Your task to perform on an android device: toggle airplane mode Image 0: 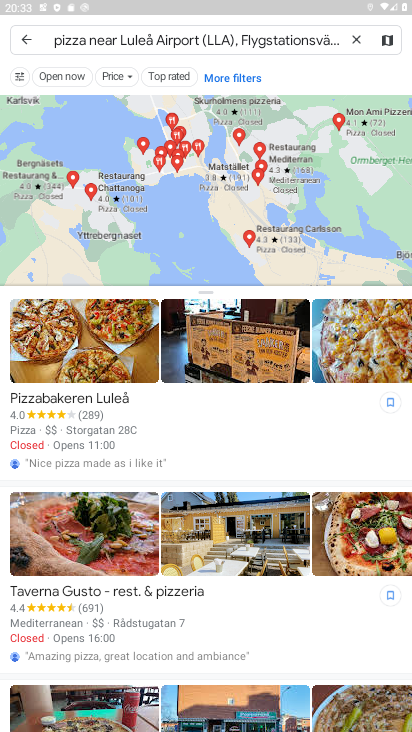
Step 0: drag from (186, 7) to (164, 386)
Your task to perform on an android device: toggle airplane mode Image 1: 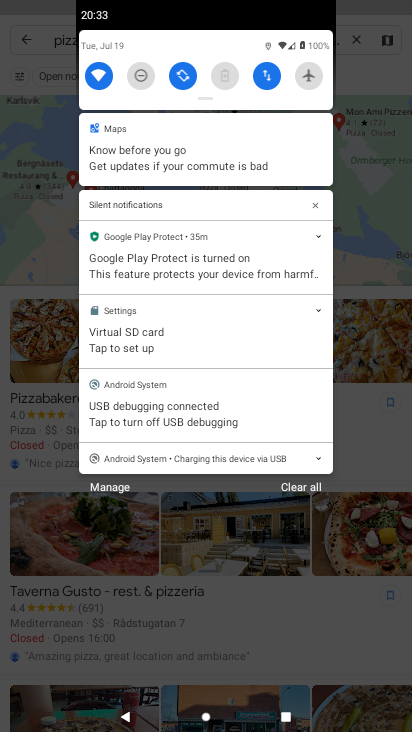
Step 1: click (311, 87)
Your task to perform on an android device: toggle airplane mode Image 2: 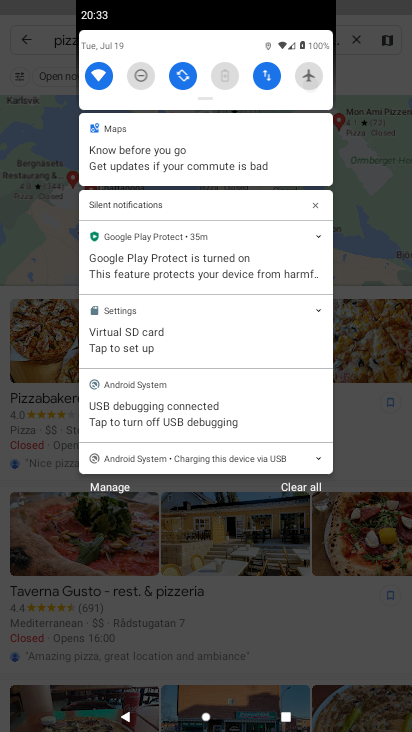
Step 2: click (311, 87)
Your task to perform on an android device: toggle airplane mode Image 3: 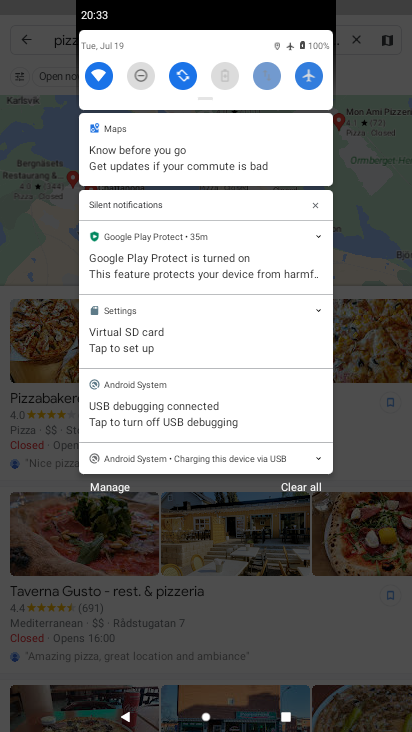
Step 3: click (311, 87)
Your task to perform on an android device: toggle airplane mode Image 4: 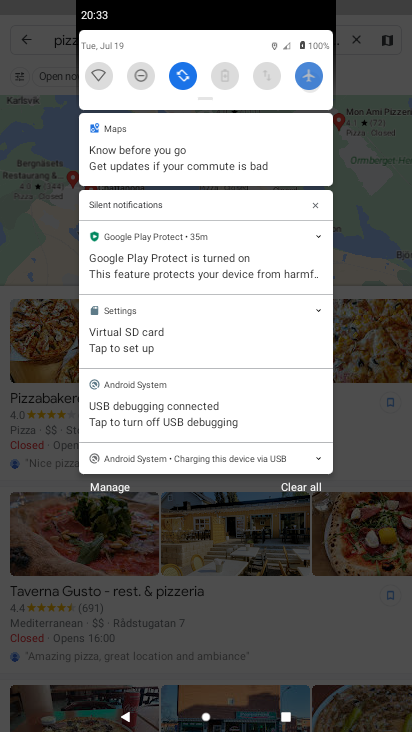
Step 4: click (311, 87)
Your task to perform on an android device: toggle airplane mode Image 5: 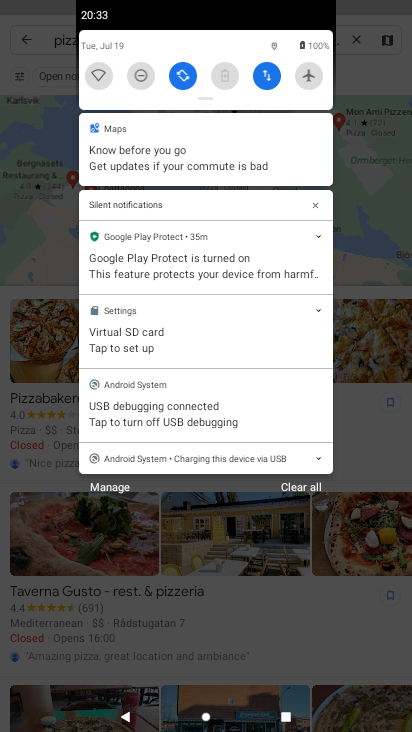
Step 5: click (311, 87)
Your task to perform on an android device: toggle airplane mode Image 6: 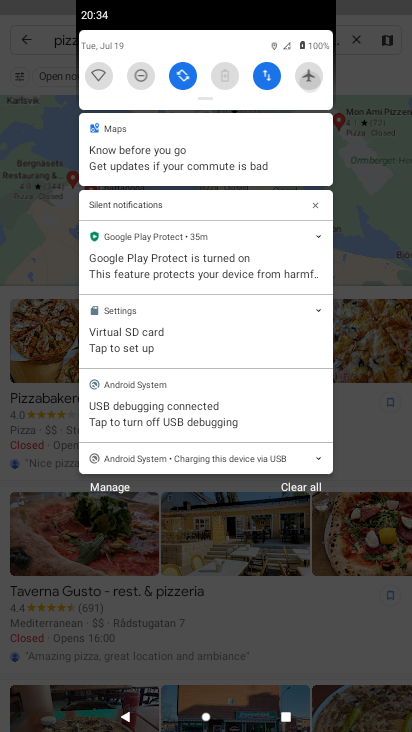
Step 6: click (311, 87)
Your task to perform on an android device: toggle airplane mode Image 7: 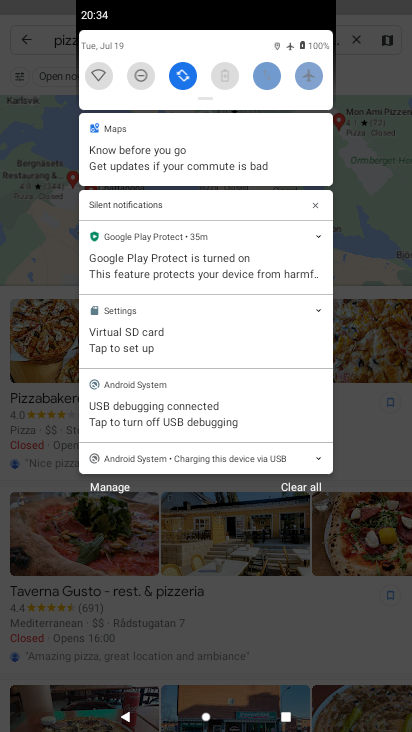
Step 7: click (311, 87)
Your task to perform on an android device: toggle airplane mode Image 8: 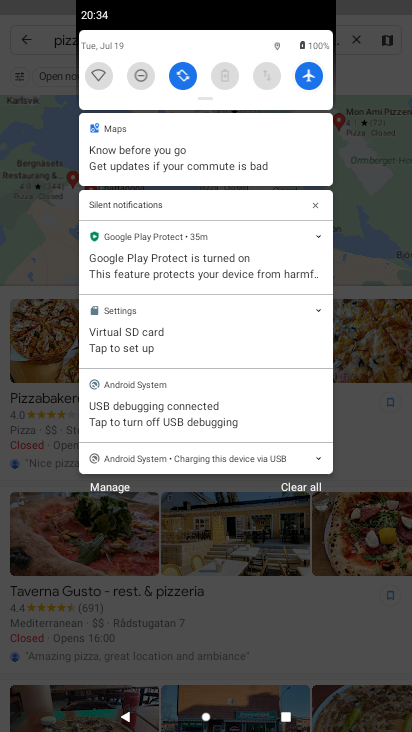
Step 8: click (311, 87)
Your task to perform on an android device: toggle airplane mode Image 9: 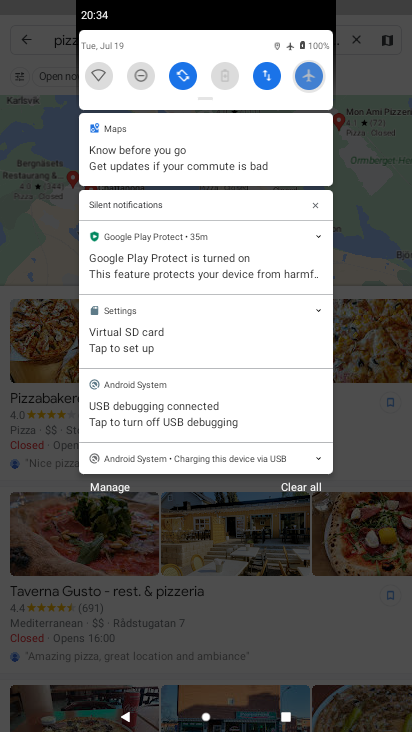
Step 9: click (311, 87)
Your task to perform on an android device: toggle airplane mode Image 10: 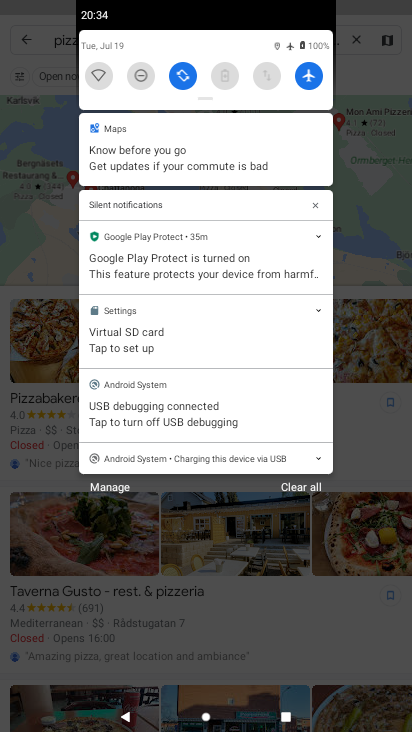
Step 10: click (311, 87)
Your task to perform on an android device: toggle airplane mode Image 11: 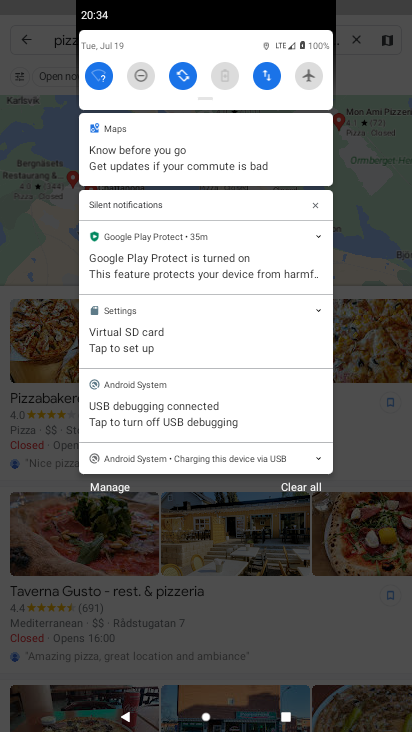
Step 11: task complete